Your task to perform on an android device: find photos in the google photos app Image 0: 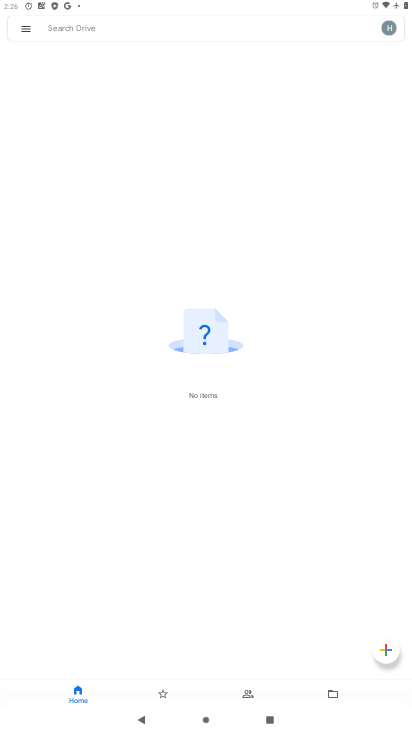
Step 0: press home button
Your task to perform on an android device: find photos in the google photos app Image 1: 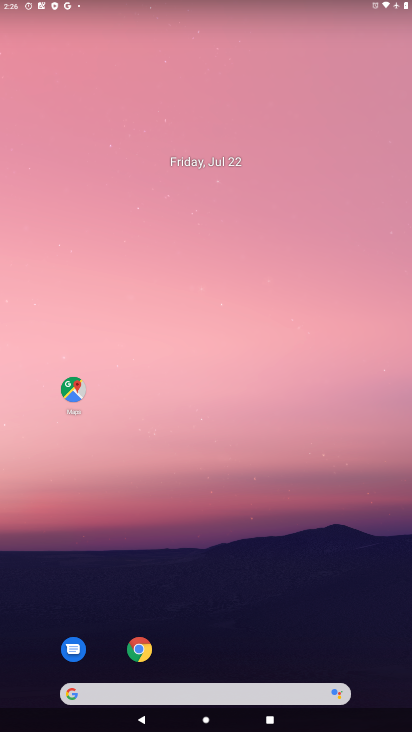
Step 1: drag from (319, 605) to (296, 151)
Your task to perform on an android device: find photos in the google photos app Image 2: 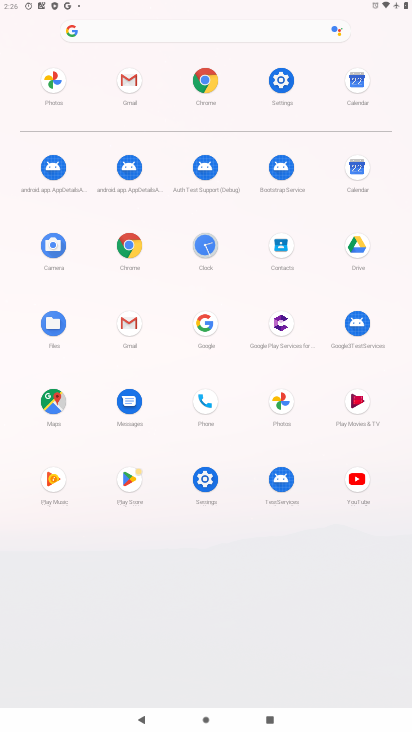
Step 2: click (282, 406)
Your task to perform on an android device: find photos in the google photos app Image 3: 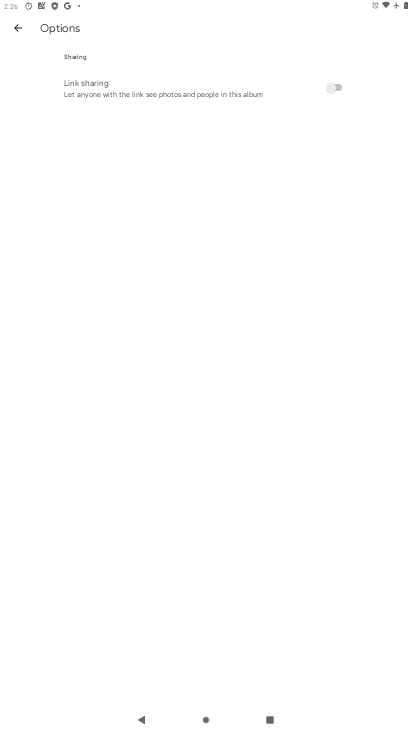
Step 3: click (17, 33)
Your task to perform on an android device: find photos in the google photos app Image 4: 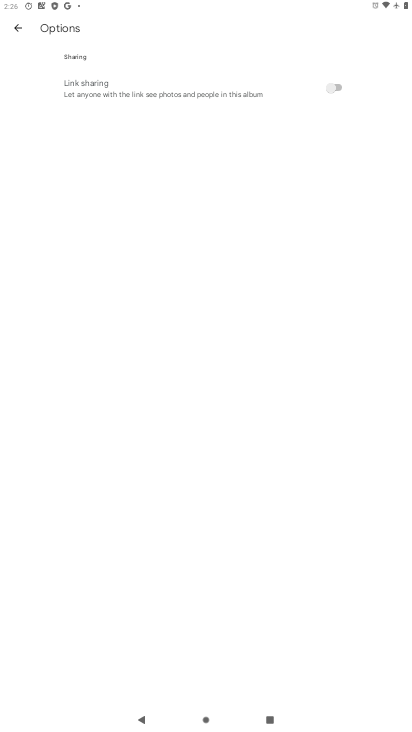
Step 4: click (19, 25)
Your task to perform on an android device: find photos in the google photos app Image 5: 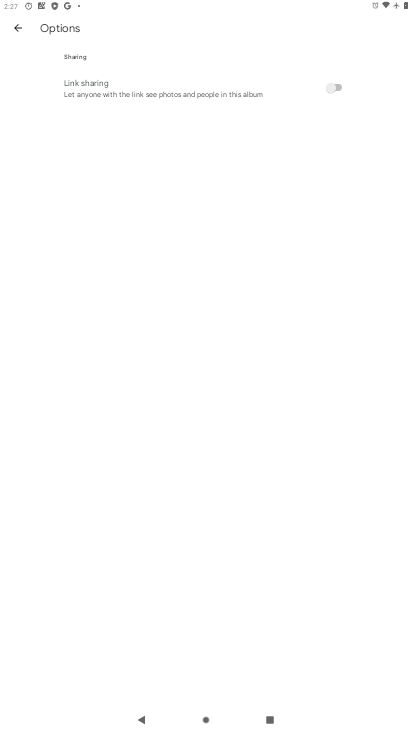
Step 5: click (17, 32)
Your task to perform on an android device: find photos in the google photos app Image 6: 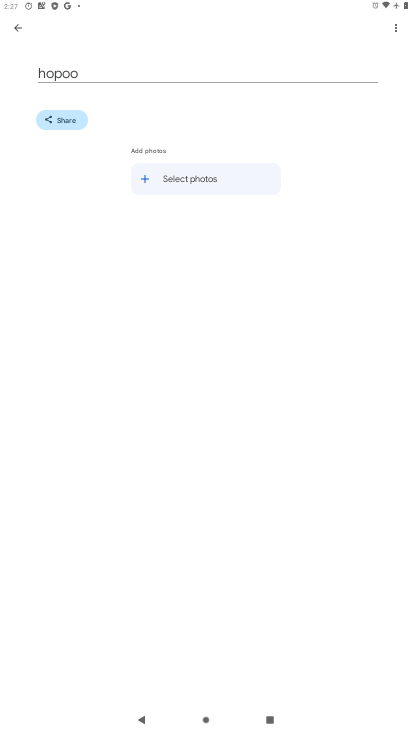
Step 6: click (18, 29)
Your task to perform on an android device: find photos in the google photos app Image 7: 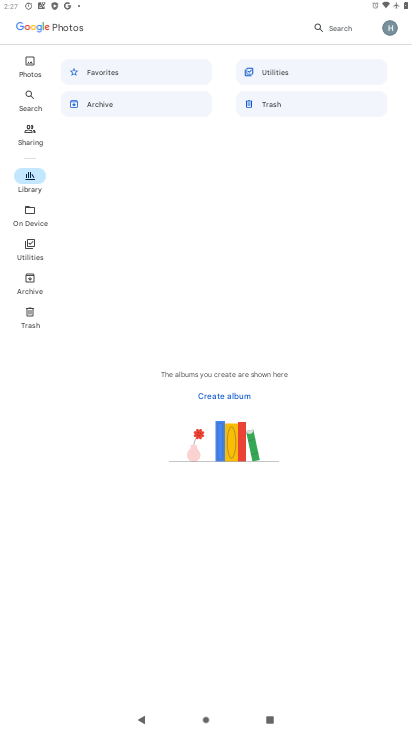
Step 7: click (30, 73)
Your task to perform on an android device: find photos in the google photos app Image 8: 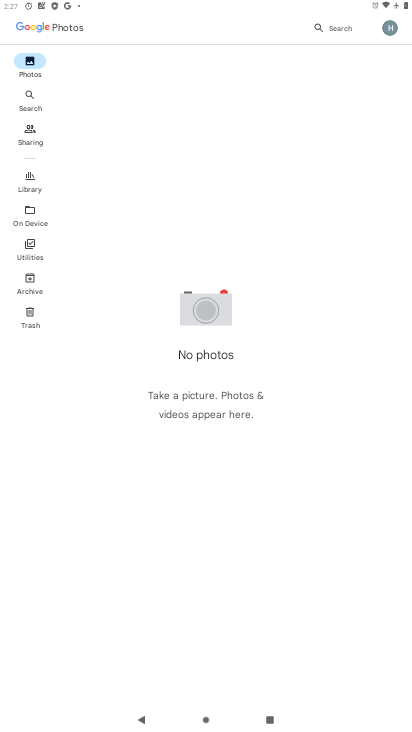
Step 8: task complete